Your task to perform on an android device: Open calendar and show me the third week of next month Image 0: 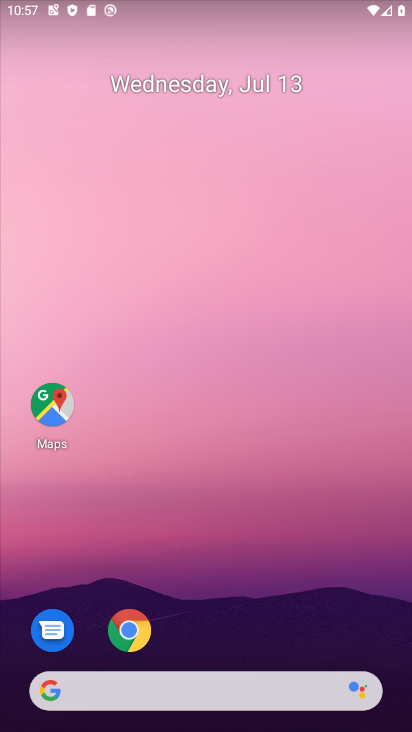
Step 0: drag from (338, 609) to (235, 36)
Your task to perform on an android device: Open calendar and show me the third week of next month Image 1: 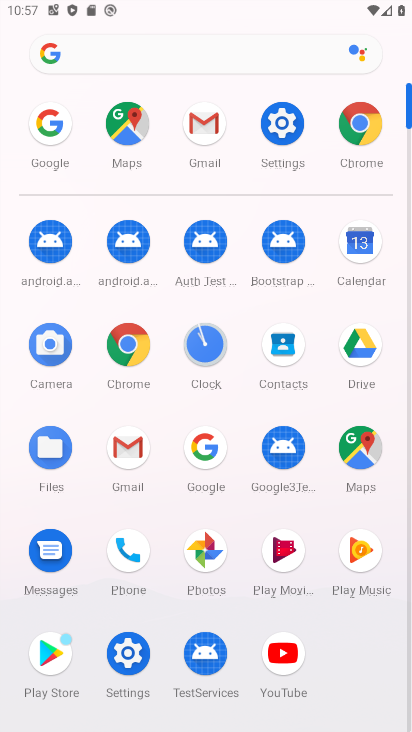
Step 1: click (358, 238)
Your task to perform on an android device: Open calendar and show me the third week of next month Image 2: 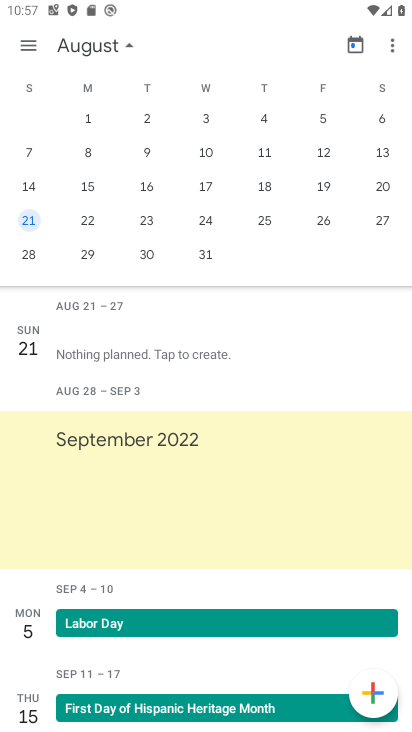
Step 2: drag from (332, 212) to (19, 143)
Your task to perform on an android device: Open calendar and show me the third week of next month Image 3: 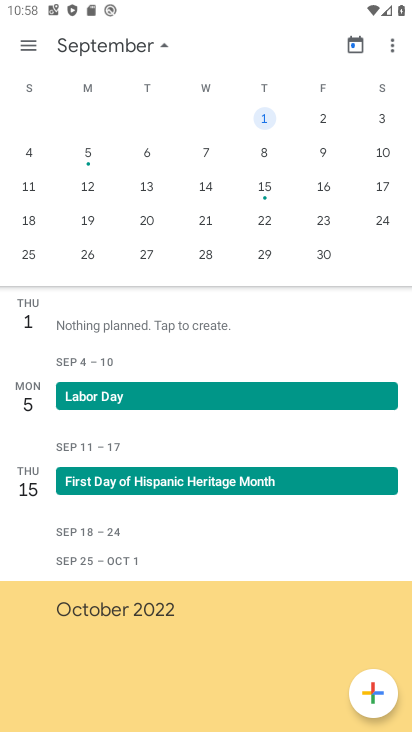
Step 3: click (202, 213)
Your task to perform on an android device: Open calendar and show me the third week of next month Image 4: 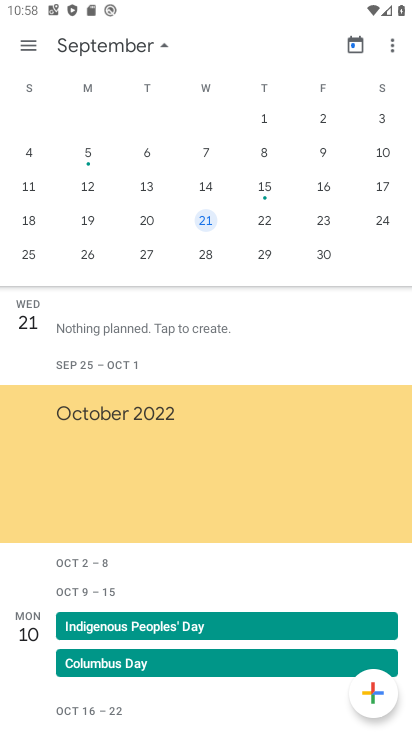
Step 4: task complete